Your task to perform on an android device: Play the last video I watched on Youtube Image 0: 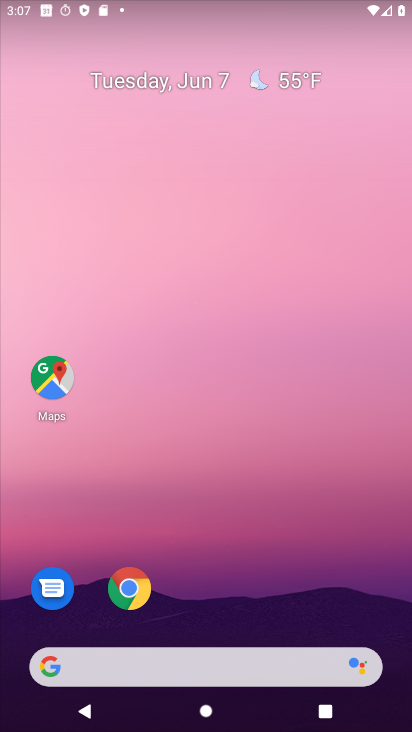
Step 0: press home button
Your task to perform on an android device: Play the last video I watched on Youtube Image 1: 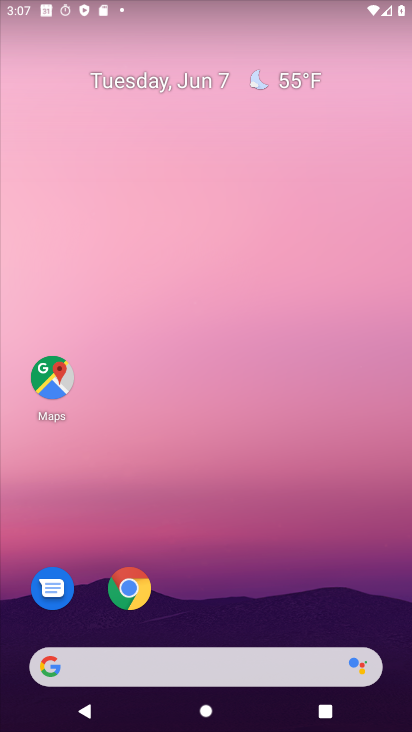
Step 1: click (402, 626)
Your task to perform on an android device: Play the last video I watched on Youtube Image 2: 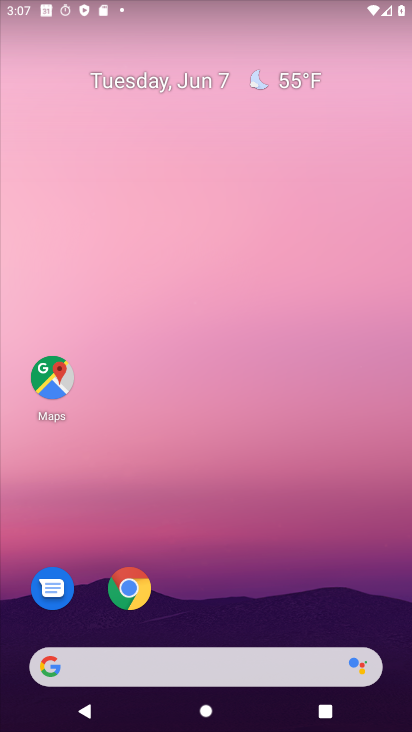
Step 2: drag from (227, 619) to (227, 220)
Your task to perform on an android device: Play the last video I watched on Youtube Image 3: 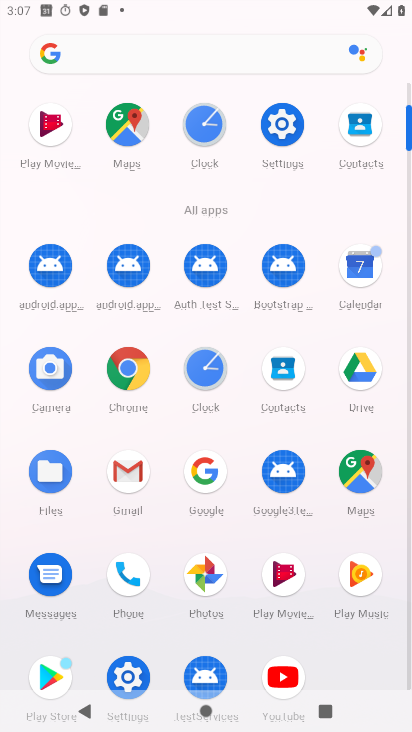
Step 3: click (294, 669)
Your task to perform on an android device: Play the last video I watched on Youtube Image 4: 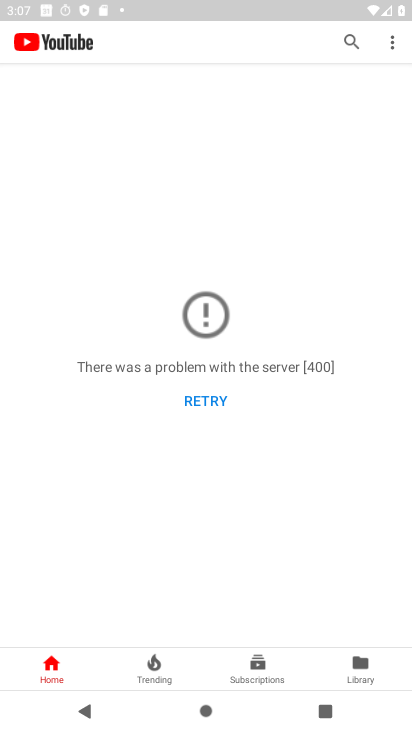
Step 4: click (200, 404)
Your task to perform on an android device: Play the last video I watched on Youtube Image 5: 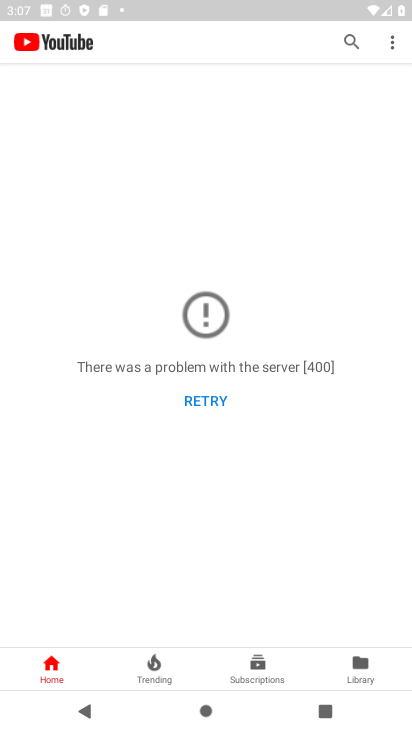
Step 5: click (200, 404)
Your task to perform on an android device: Play the last video I watched on Youtube Image 6: 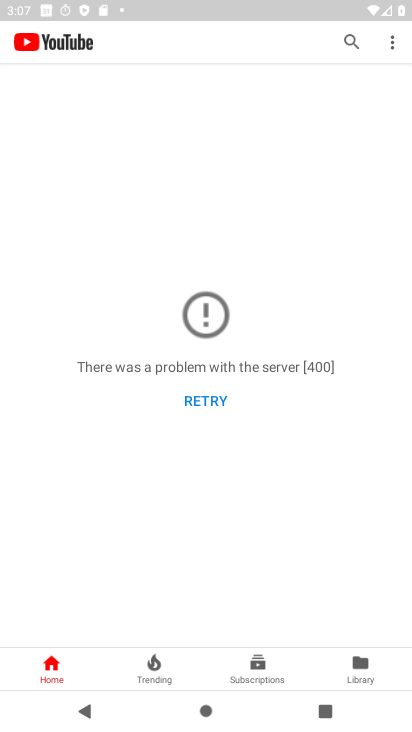
Step 6: click (200, 404)
Your task to perform on an android device: Play the last video I watched on Youtube Image 7: 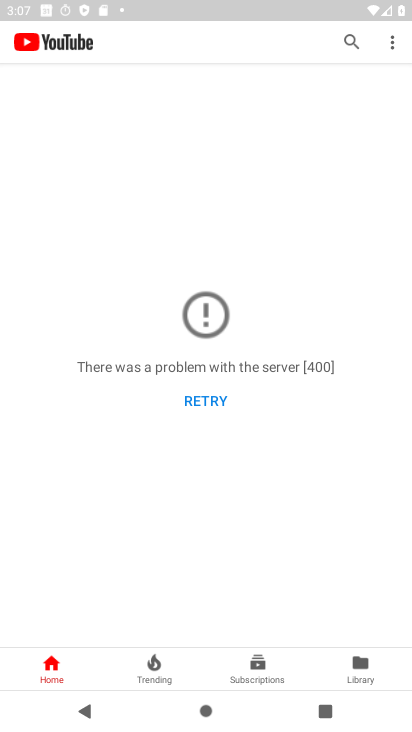
Step 7: task complete